Your task to perform on an android device: open a new tab in the chrome app Image 0: 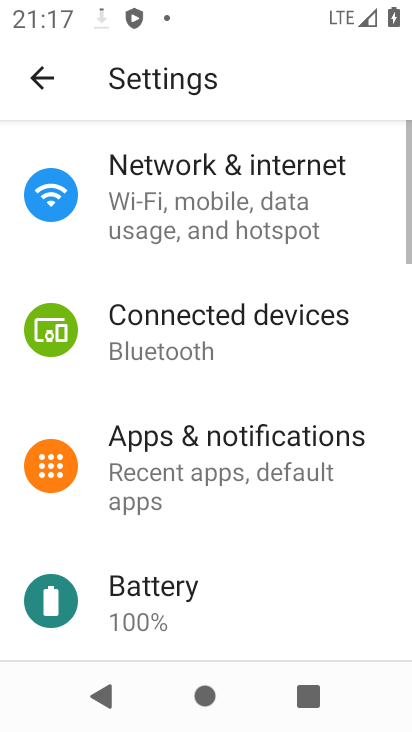
Step 0: press back button
Your task to perform on an android device: open a new tab in the chrome app Image 1: 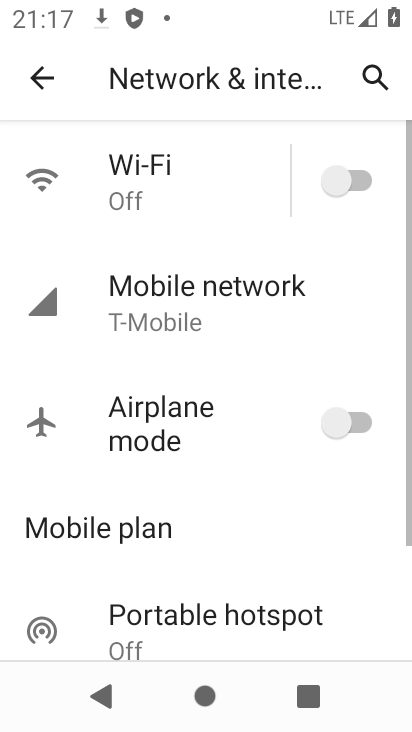
Step 1: press back button
Your task to perform on an android device: open a new tab in the chrome app Image 2: 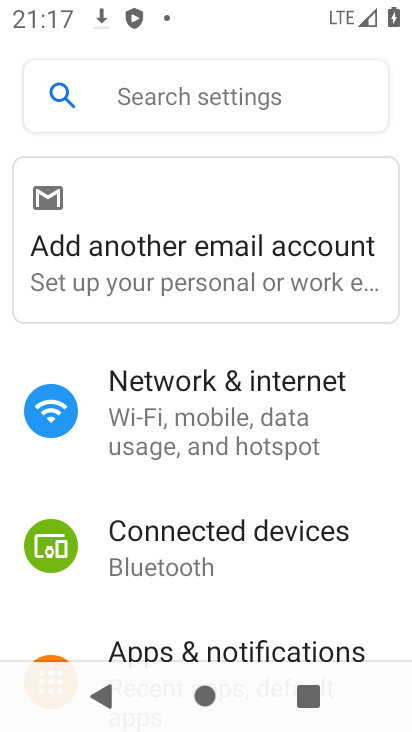
Step 2: press back button
Your task to perform on an android device: open a new tab in the chrome app Image 3: 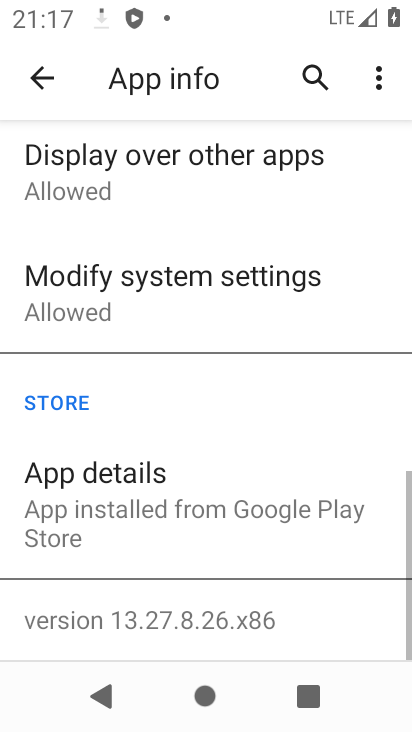
Step 3: press back button
Your task to perform on an android device: open a new tab in the chrome app Image 4: 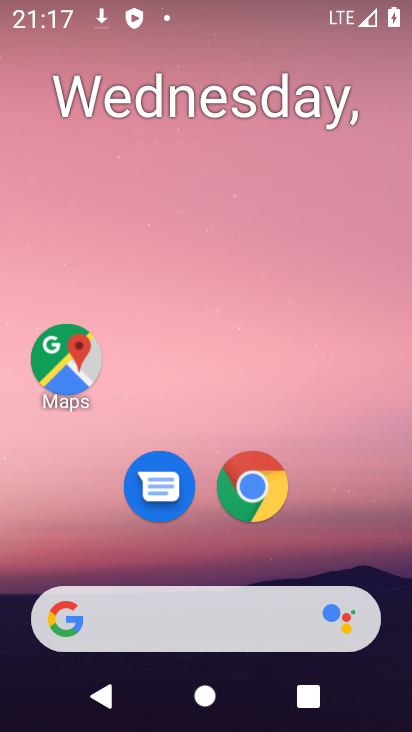
Step 4: click (243, 474)
Your task to perform on an android device: open a new tab in the chrome app Image 5: 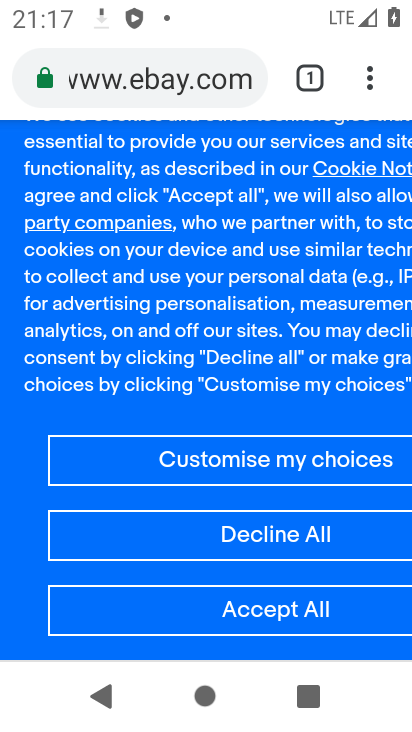
Step 5: click (309, 81)
Your task to perform on an android device: open a new tab in the chrome app Image 6: 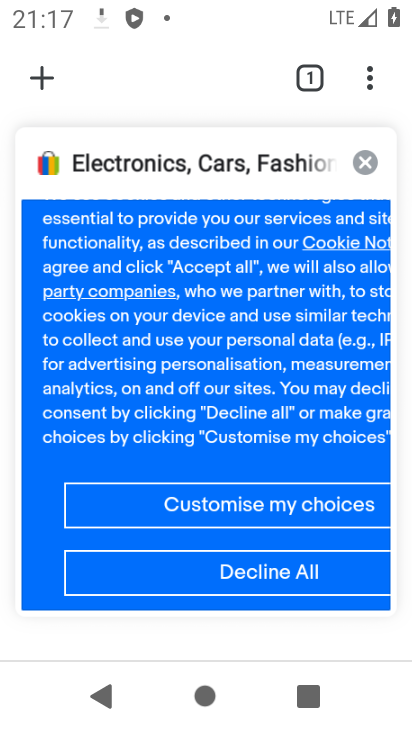
Step 6: click (39, 67)
Your task to perform on an android device: open a new tab in the chrome app Image 7: 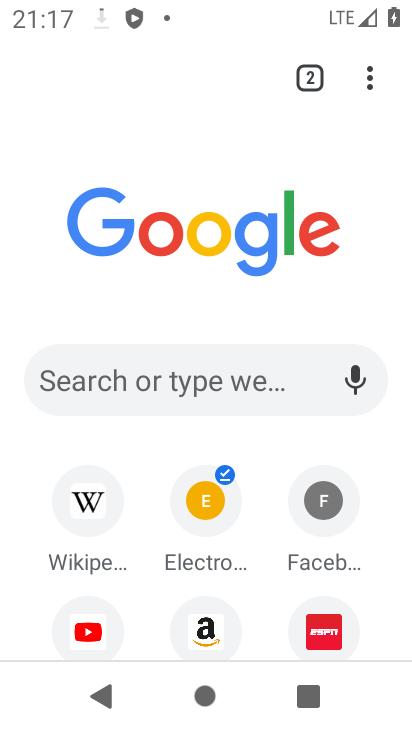
Step 7: task complete